Your task to perform on an android device: Open Google Maps Image 0: 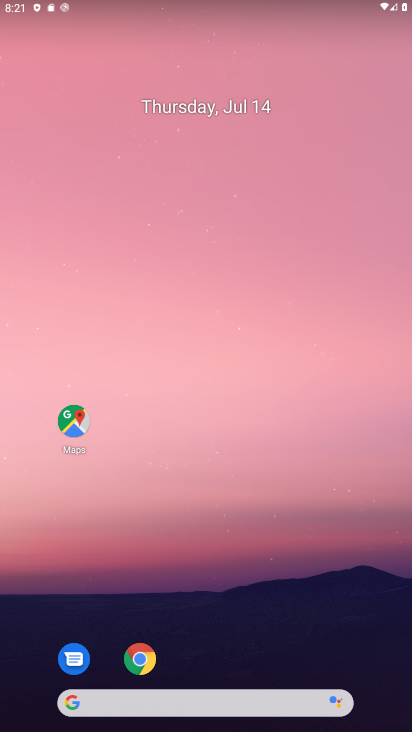
Step 0: drag from (206, 645) to (167, 72)
Your task to perform on an android device: Open Google Maps Image 1: 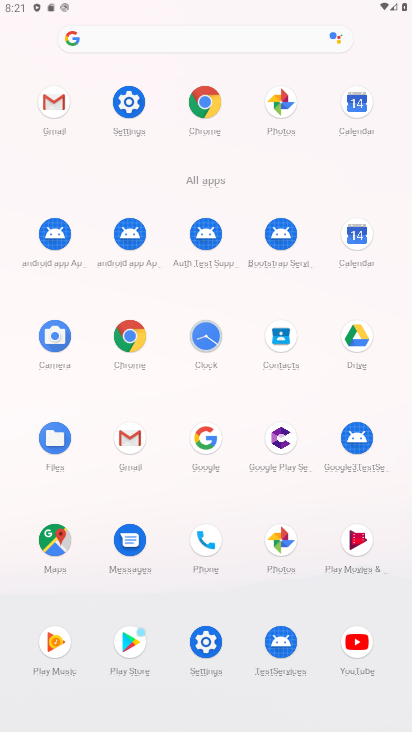
Step 1: click (55, 548)
Your task to perform on an android device: Open Google Maps Image 2: 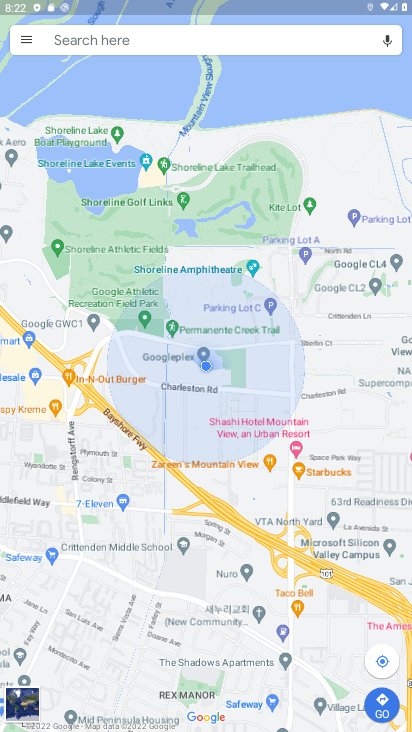
Step 2: task complete